Your task to perform on an android device: Open location settings Image 0: 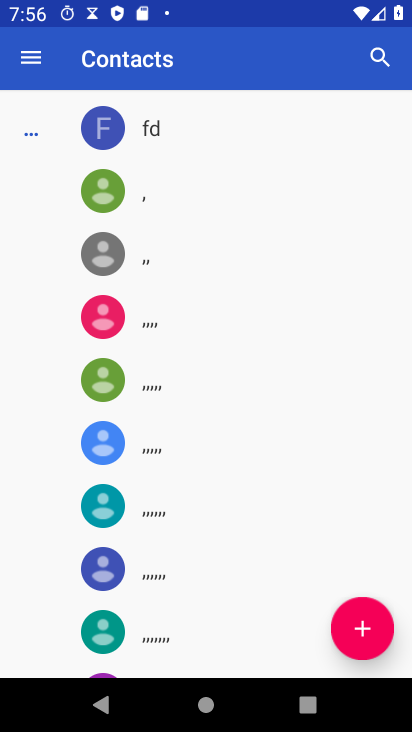
Step 0: press home button
Your task to perform on an android device: Open location settings Image 1: 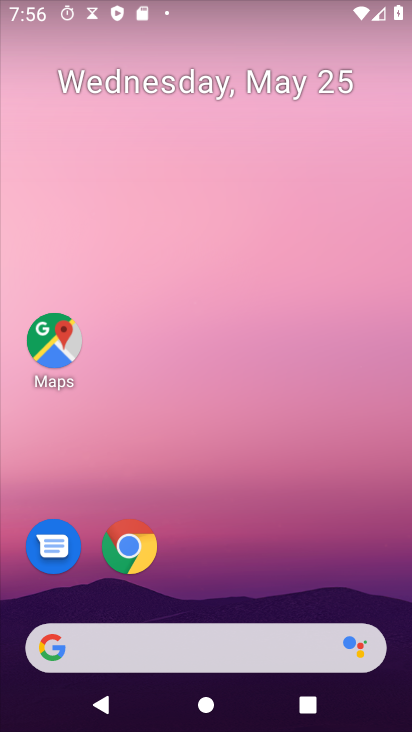
Step 1: drag from (227, 367) to (272, 11)
Your task to perform on an android device: Open location settings Image 2: 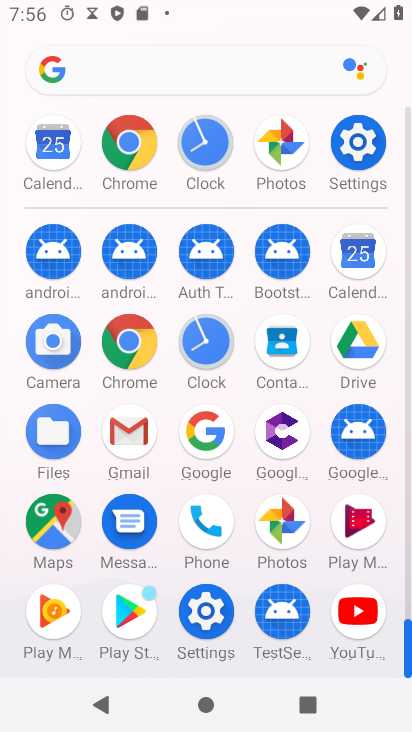
Step 2: click (354, 160)
Your task to perform on an android device: Open location settings Image 3: 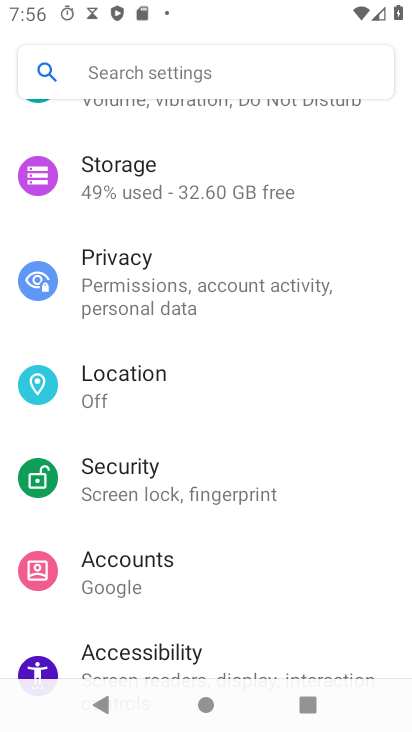
Step 3: click (100, 391)
Your task to perform on an android device: Open location settings Image 4: 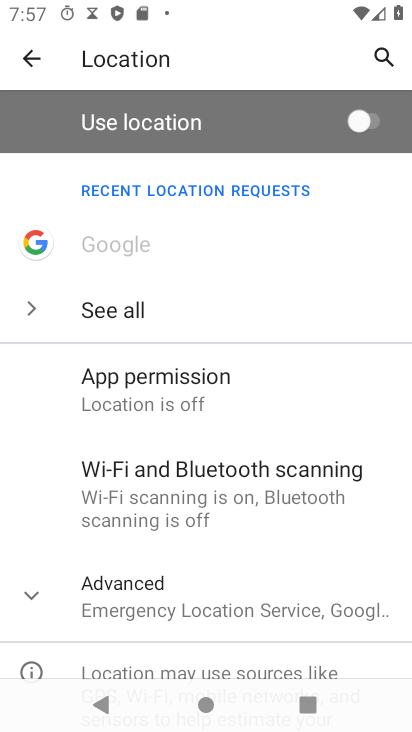
Step 4: task complete